Your task to perform on an android device: When is my next appointment? Image 0: 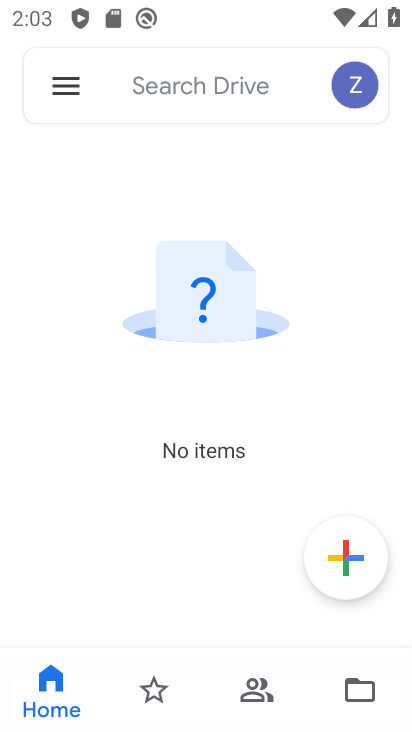
Step 0: press back button
Your task to perform on an android device: When is my next appointment? Image 1: 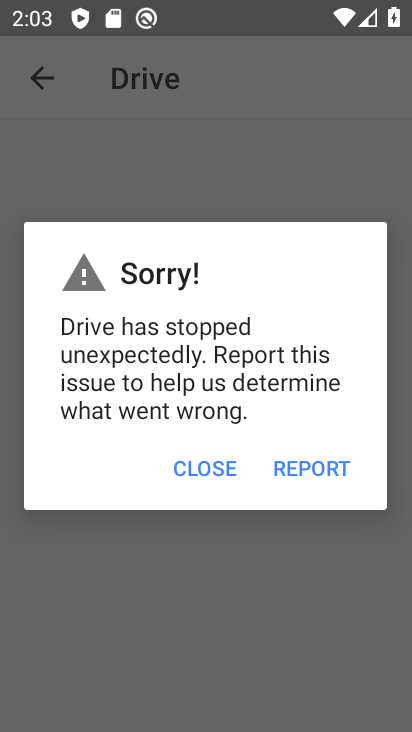
Step 1: click (183, 464)
Your task to perform on an android device: When is my next appointment? Image 2: 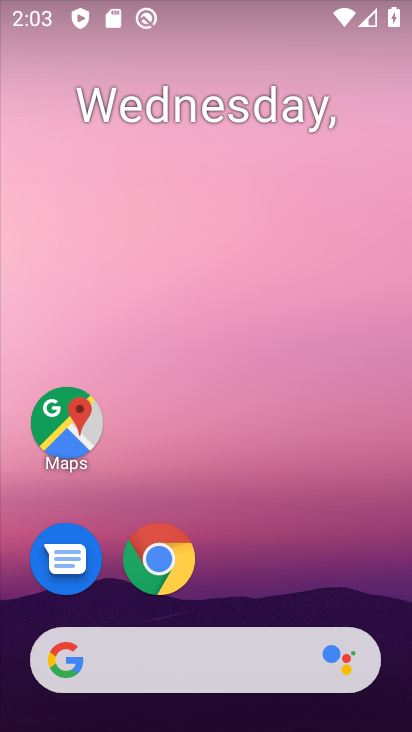
Step 2: drag from (191, 588) to (288, 14)
Your task to perform on an android device: When is my next appointment? Image 3: 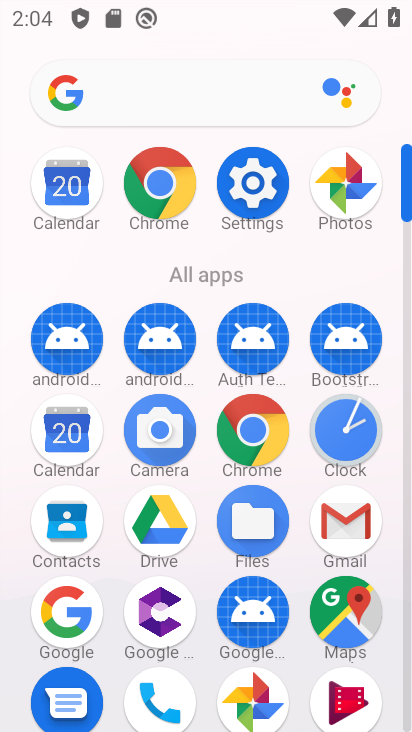
Step 3: click (60, 405)
Your task to perform on an android device: When is my next appointment? Image 4: 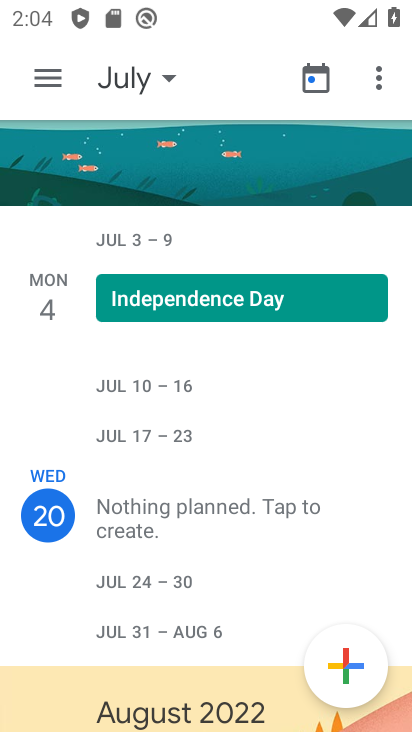
Step 4: drag from (175, 256) to (167, 542)
Your task to perform on an android device: When is my next appointment? Image 5: 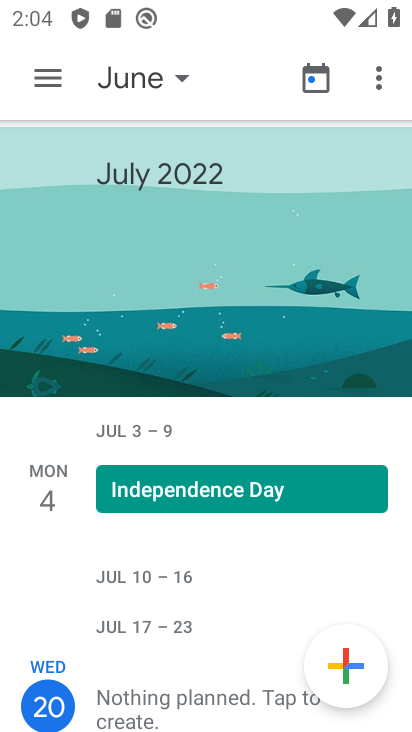
Step 5: click (134, 89)
Your task to perform on an android device: When is my next appointment? Image 6: 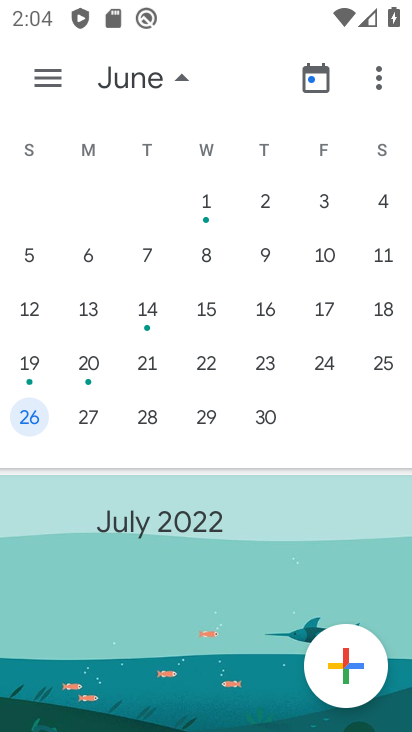
Step 6: click (97, 344)
Your task to perform on an android device: When is my next appointment? Image 7: 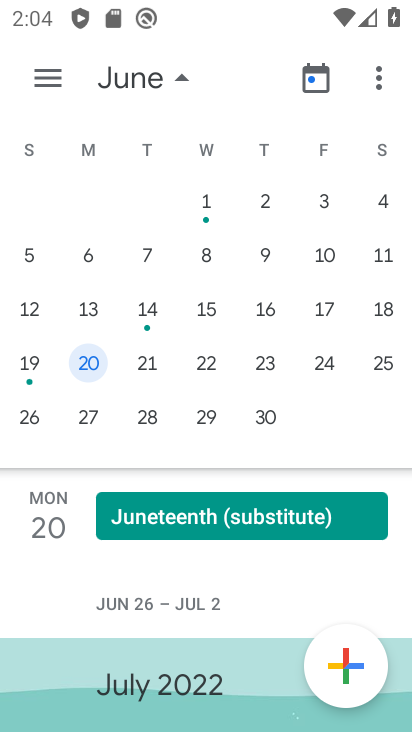
Step 7: task complete